Your task to perform on an android device: Go to network settings Image 0: 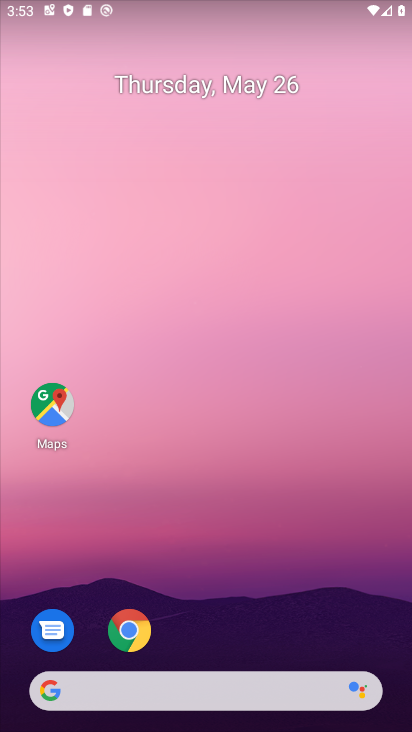
Step 0: drag from (235, 591) to (212, 25)
Your task to perform on an android device: Go to network settings Image 1: 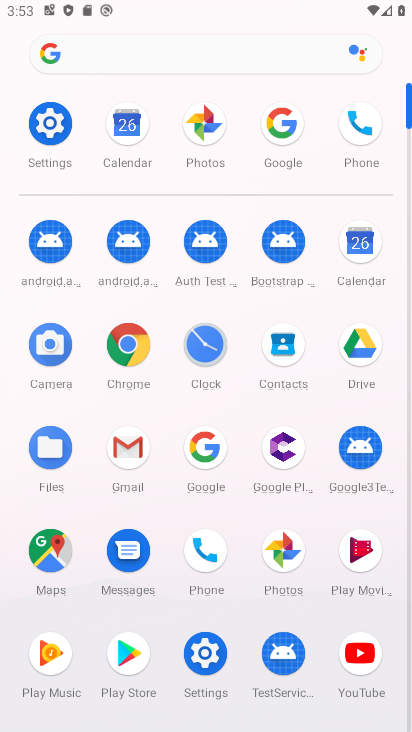
Step 1: click (51, 122)
Your task to perform on an android device: Go to network settings Image 2: 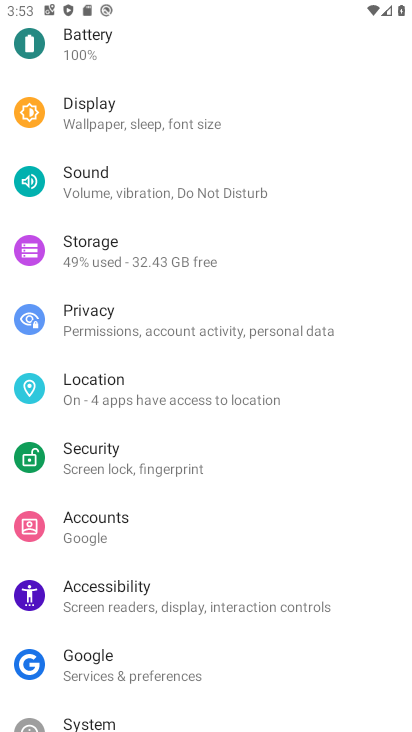
Step 2: drag from (188, 100) to (169, 204)
Your task to perform on an android device: Go to network settings Image 3: 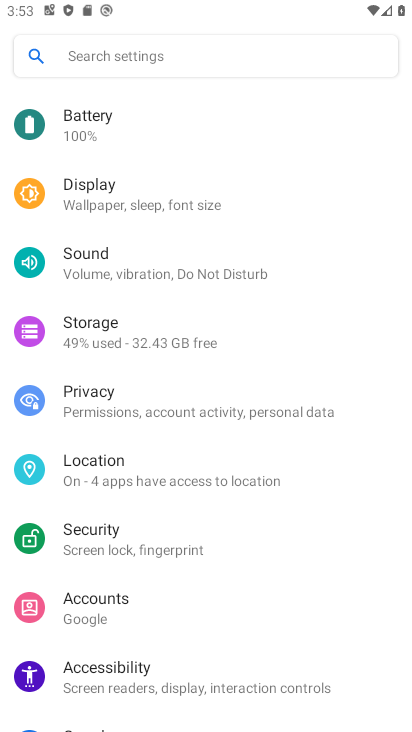
Step 3: drag from (197, 152) to (151, 225)
Your task to perform on an android device: Go to network settings Image 4: 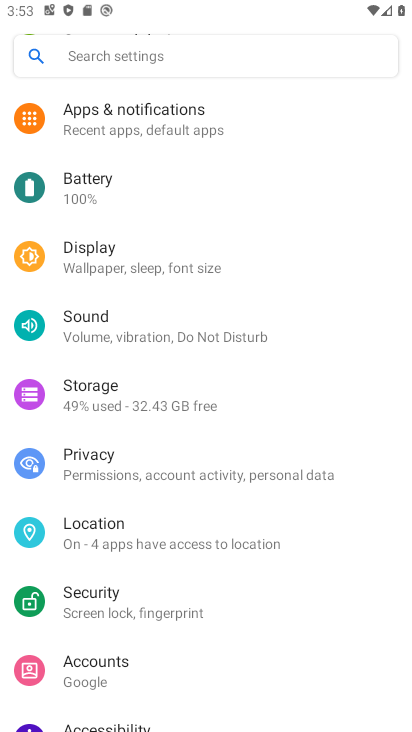
Step 4: drag from (181, 184) to (194, 251)
Your task to perform on an android device: Go to network settings Image 5: 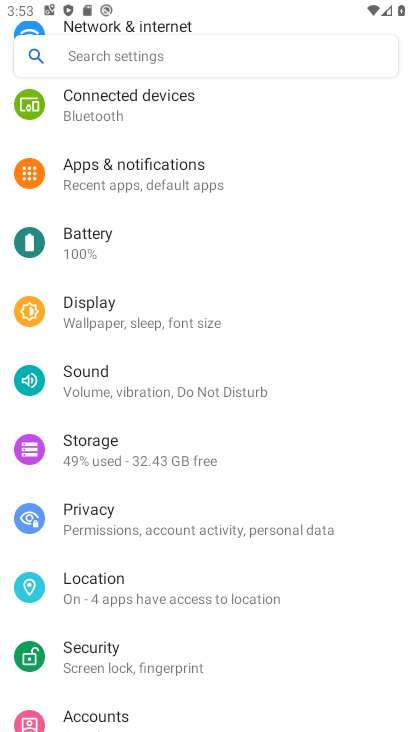
Step 5: drag from (194, 133) to (214, 204)
Your task to perform on an android device: Go to network settings Image 6: 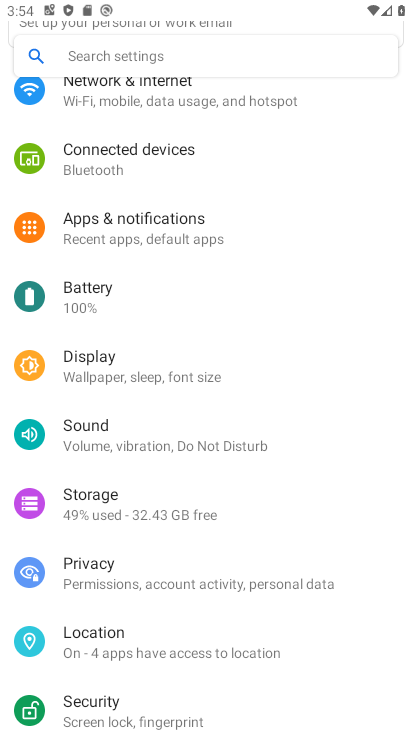
Step 6: drag from (229, 135) to (248, 229)
Your task to perform on an android device: Go to network settings Image 7: 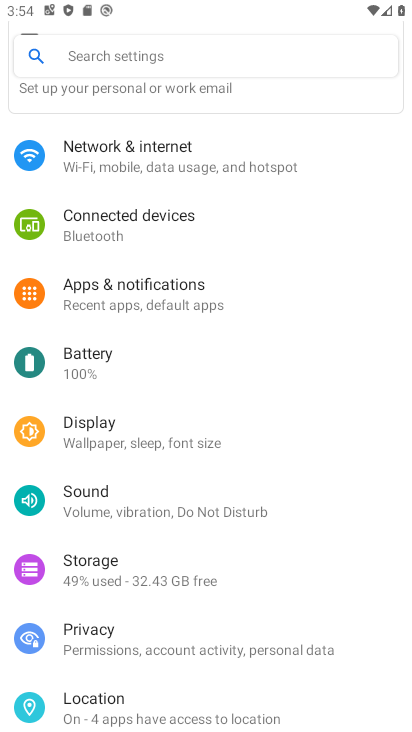
Step 7: click (179, 159)
Your task to perform on an android device: Go to network settings Image 8: 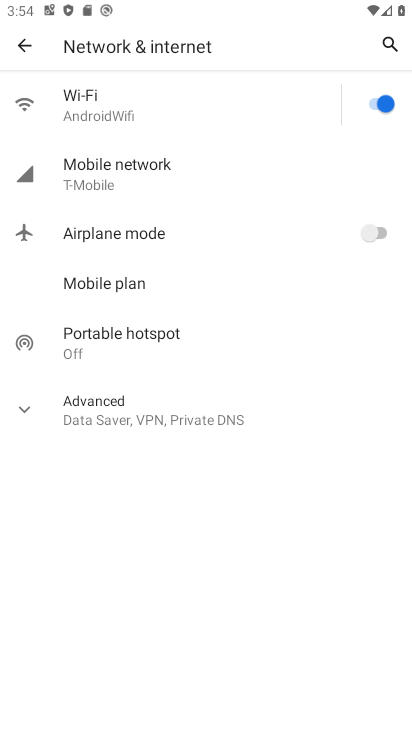
Step 8: click (144, 162)
Your task to perform on an android device: Go to network settings Image 9: 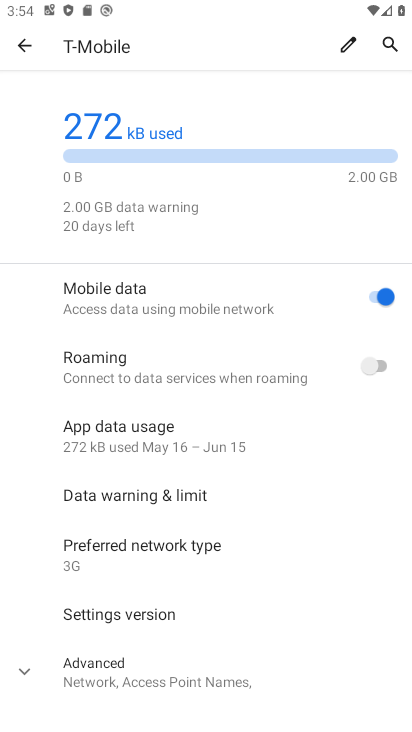
Step 9: task complete